Your task to perform on an android device: Open privacy settings Image 0: 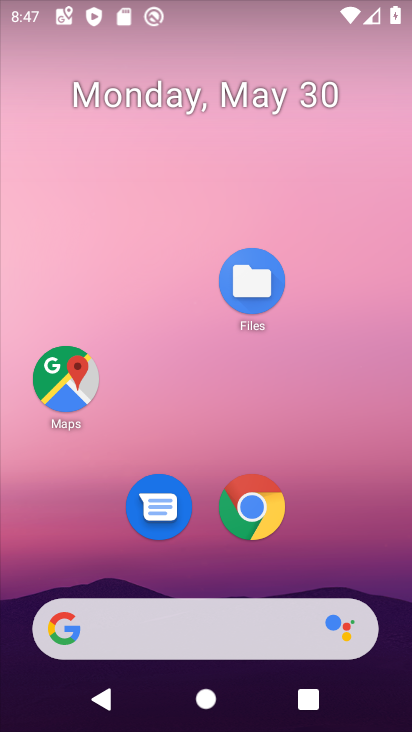
Step 0: drag from (189, 536) to (246, 144)
Your task to perform on an android device: Open privacy settings Image 1: 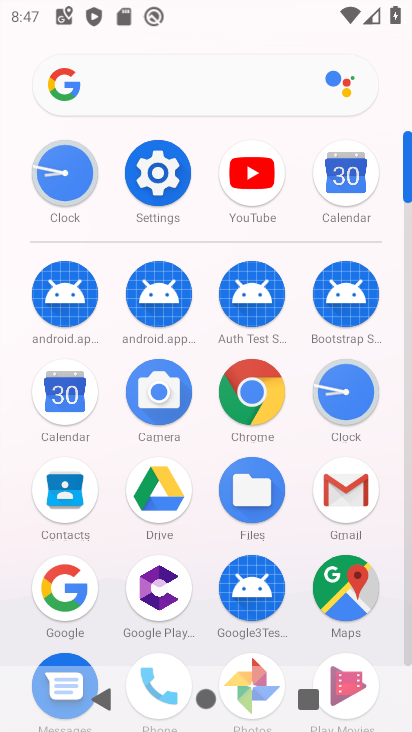
Step 1: click (169, 177)
Your task to perform on an android device: Open privacy settings Image 2: 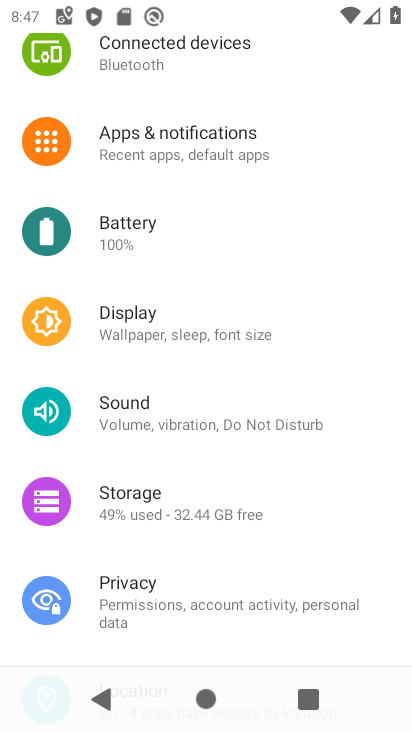
Step 2: drag from (188, 475) to (212, 326)
Your task to perform on an android device: Open privacy settings Image 3: 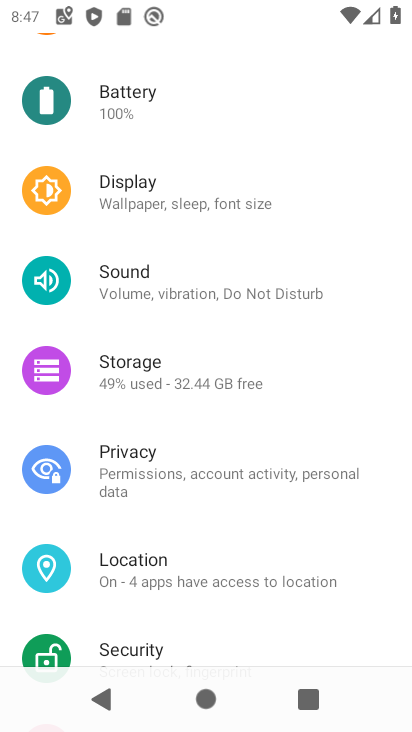
Step 3: click (154, 456)
Your task to perform on an android device: Open privacy settings Image 4: 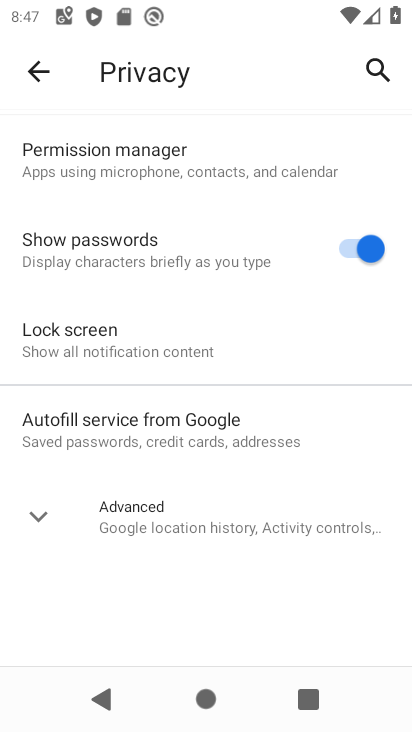
Step 4: task complete